Your task to perform on an android device: What's on my calendar today? Image 0: 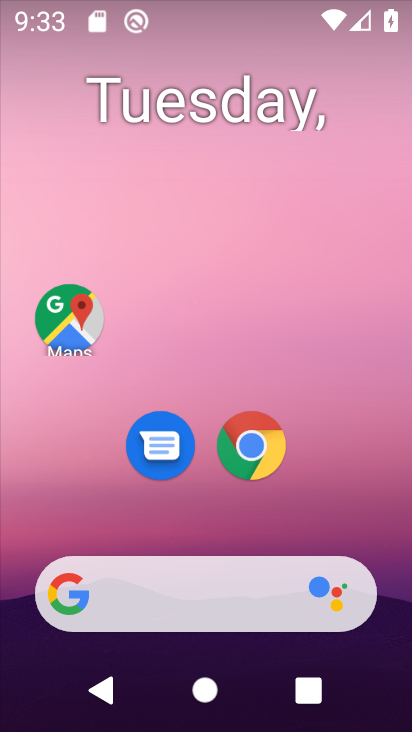
Step 0: drag from (204, 477) to (251, 20)
Your task to perform on an android device: What's on my calendar today? Image 1: 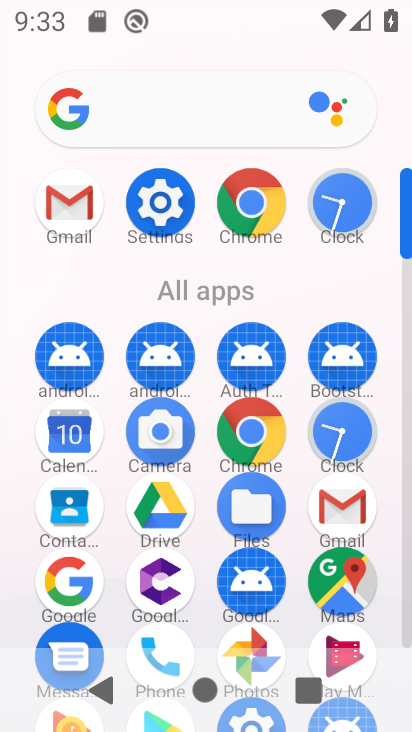
Step 1: click (55, 428)
Your task to perform on an android device: What's on my calendar today? Image 2: 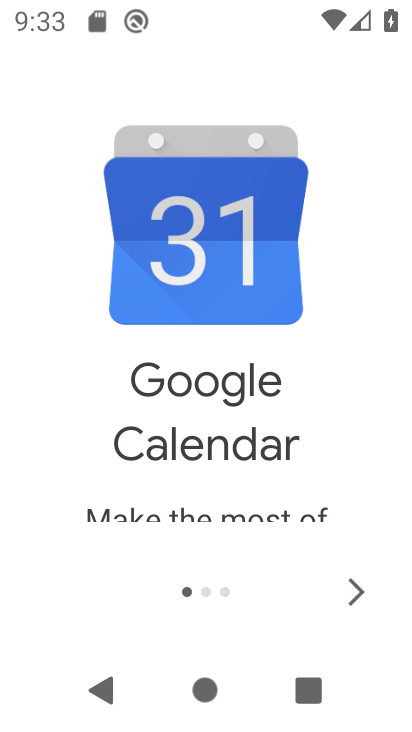
Step 2: click (349, 588)
Your task to perform on an android device: What's on my calendar today? Image 3: 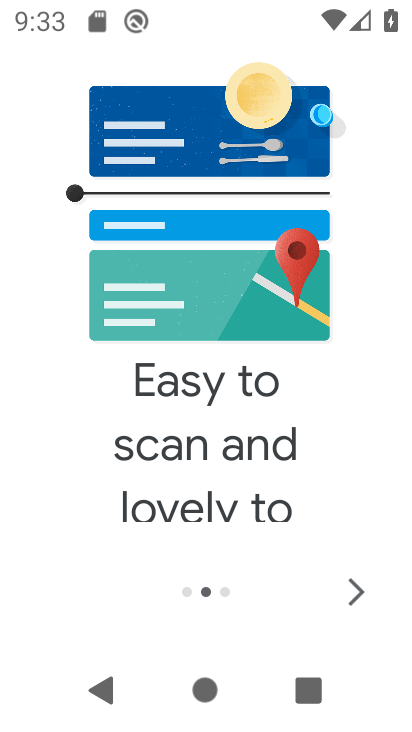
Step 3: click (349, 588)
Your task to perform on an android device: What's on my calendar today? Image 4: 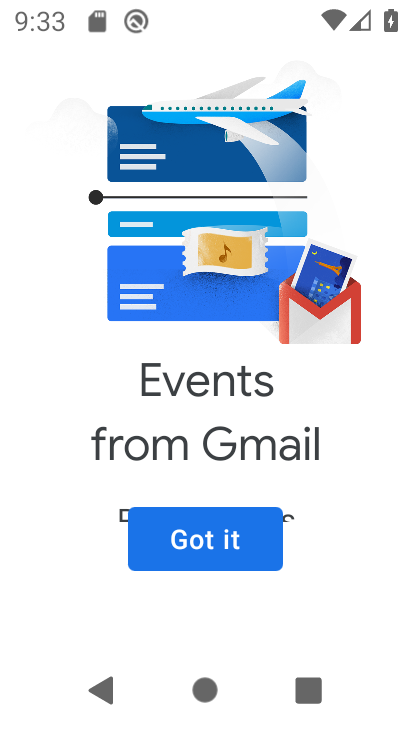
Step 4: click (228, 536)
Your task to perform on an android device: What's on my calendar today? Image 5: 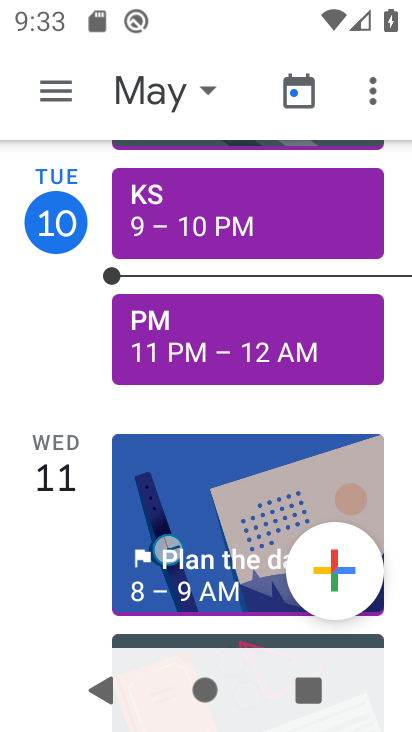
Step 5: click (60, 222)
Your task to perform on an android device: What's on my calendar today? Image 6: 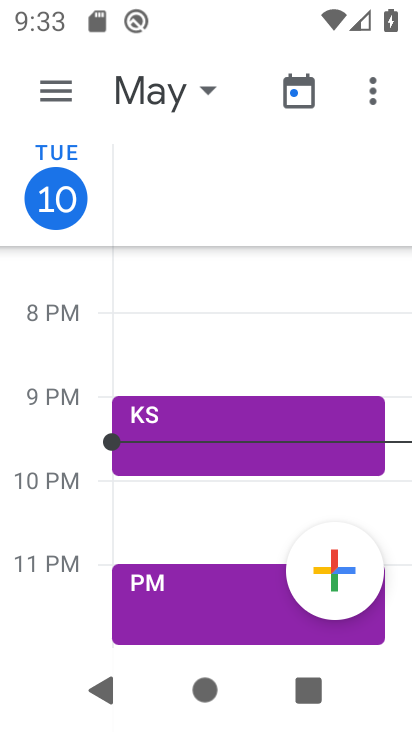
Step 6: task complete